Your task to perform on an android device: toggle notification dots Image 0: 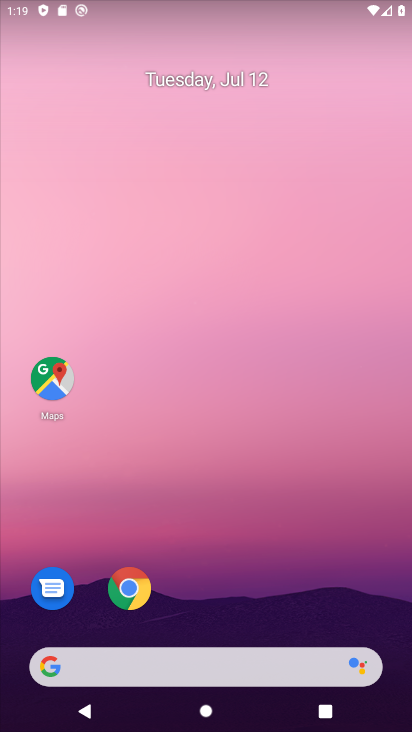
Step 0: click (221, 245)
Your task to perform on an android device: toggle notification dots Image 1: 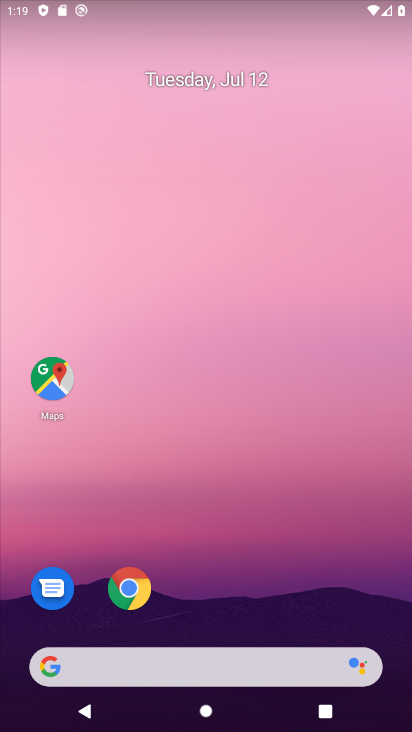
Step 1: drag from (198, 592) to (214, 166)
Your task to perform on an android device: toggle notification dots Image 2: 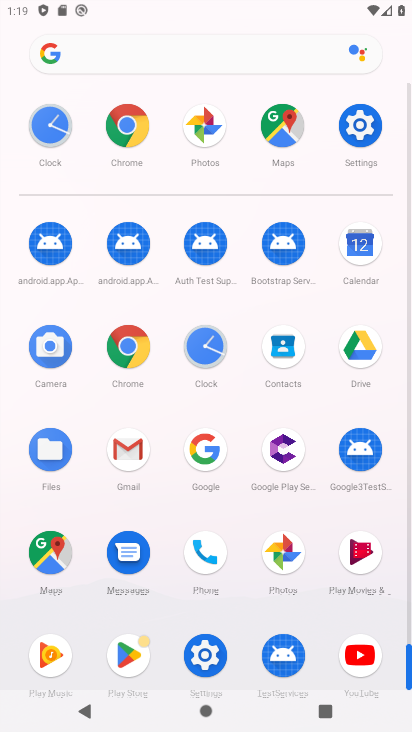
Step 2: click (362, 138)
Your task to perform on an android device: toggle notification dots Image 3: 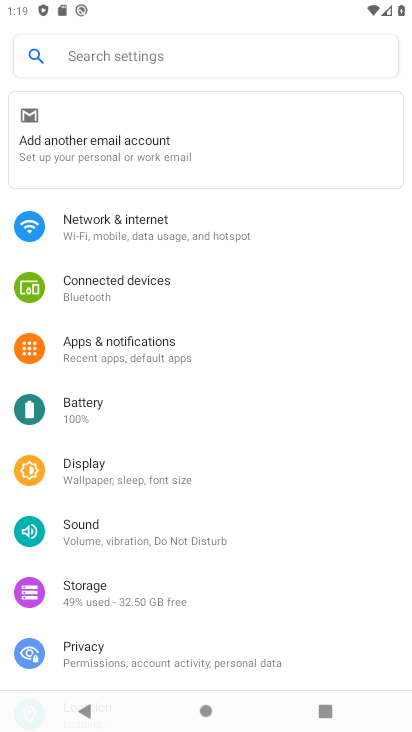
Step 3: click (126, 358)
Your task to perform on an android device: toggle notification dots Image 4: 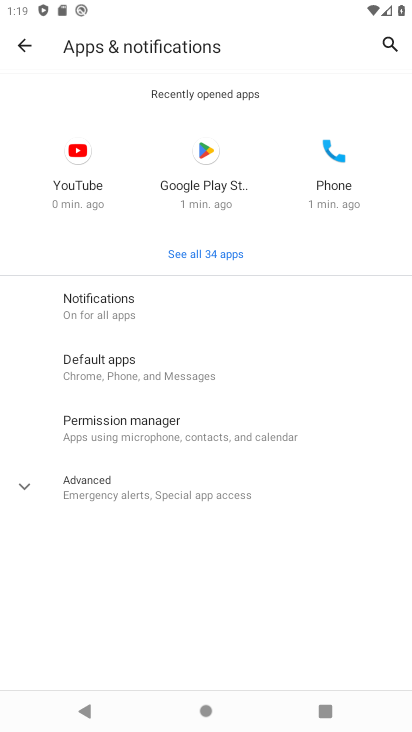
Step 4: click (142, 303)
Your task to perform on an android device: toggle notification dots Image 5: 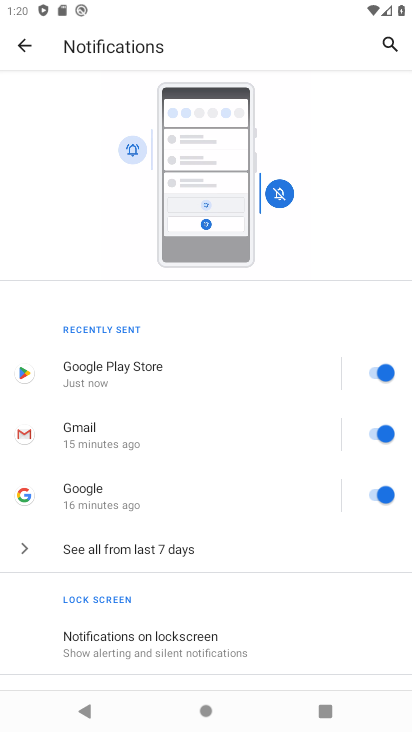
Step 5: drag from (146, 631) to (243, 182)
Your task to perform on an android device: toggle notification dots Image 6: 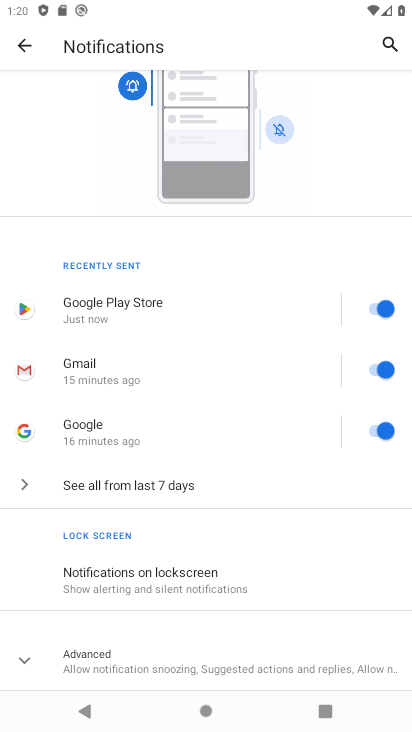
Step 6: click (173, 669)
Your task to perform on an android device: toggle notification dots Image 7: 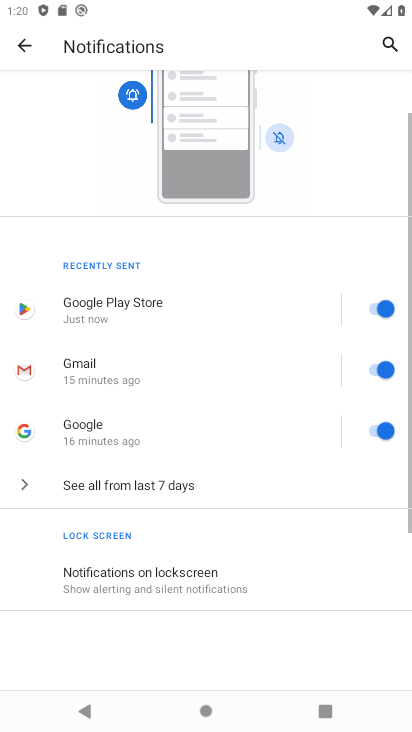
Step 7: drag from (172, 655) to (284, 183)
Your task to perform on an android device: toggle notification dots Image 8: 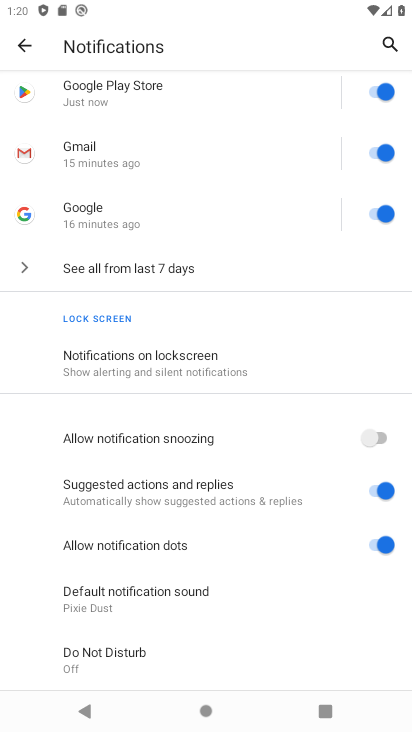
Step 8: click (374, 539)
Your task to perform on an android device: toggle notification dots Image 9: 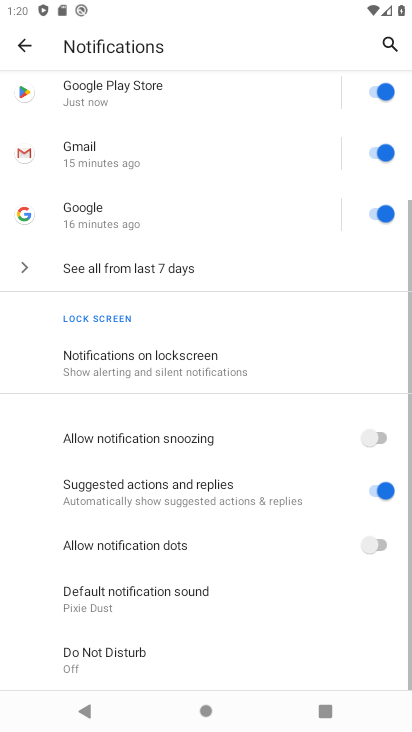
Step 9: task complete